Your task to perform on an android device: open app "Truecaller" Image 0: 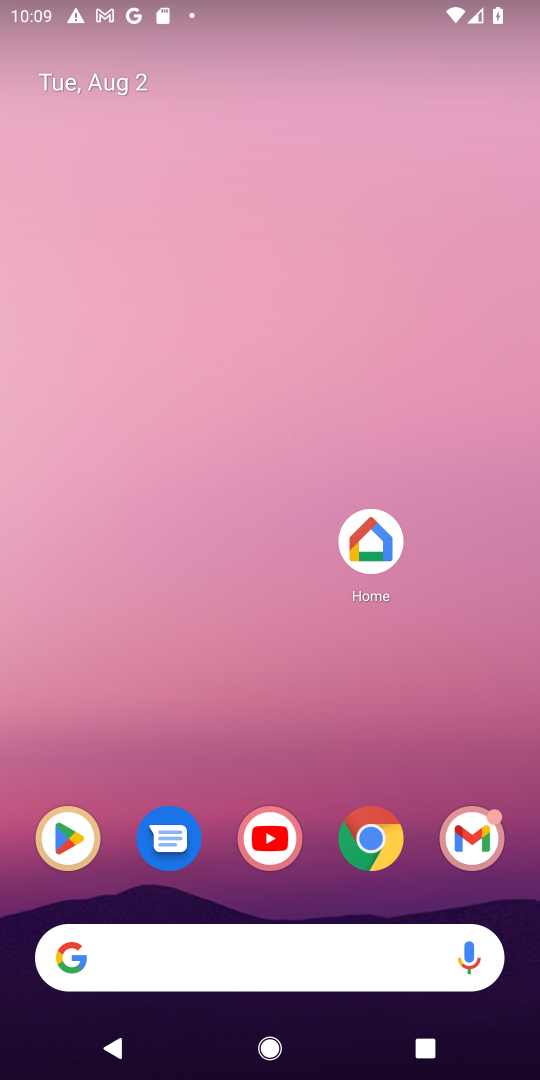
Step 0: press home button
Your task to perform on an android device: open app "Truecaller" Image 1: 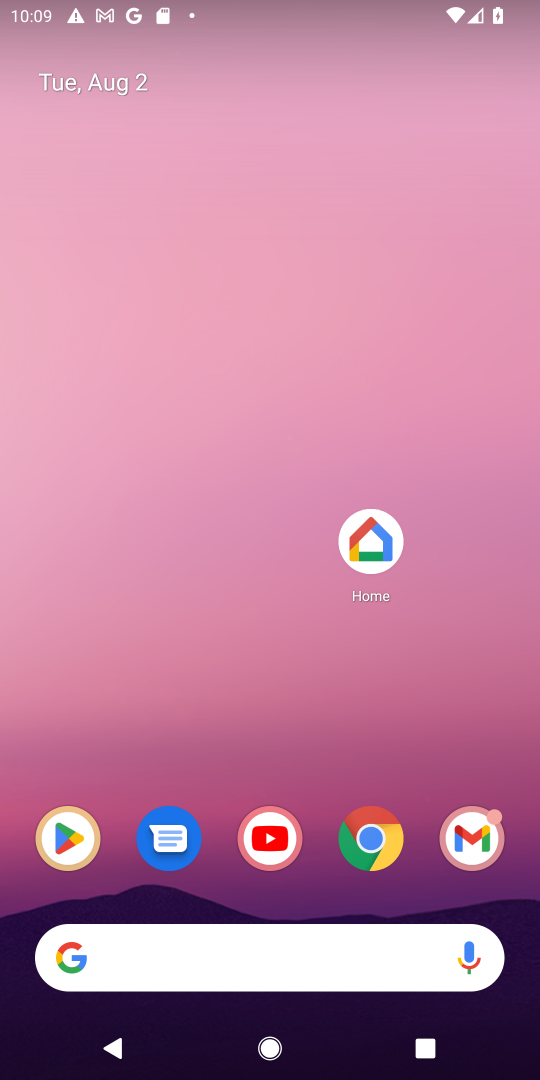
Step 1: drag from (220, 762) to (226, 96)
Your task to perform on an android device: open app "Truecaller" Image 2: 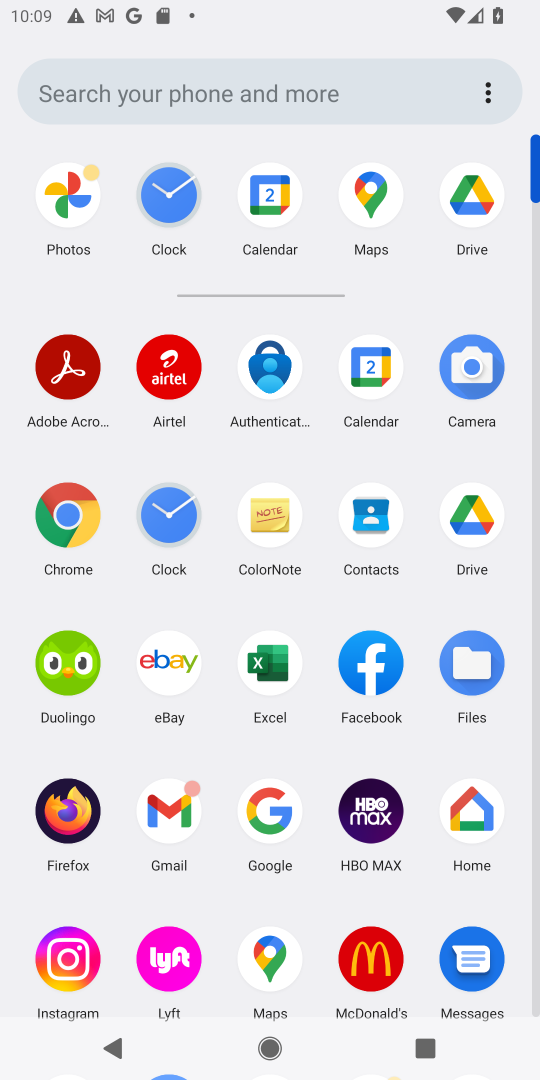
Step 2: drag from (222, 752) to (206, 385)
Your task to perform on an android device: open app "Truecaller" Image 3: 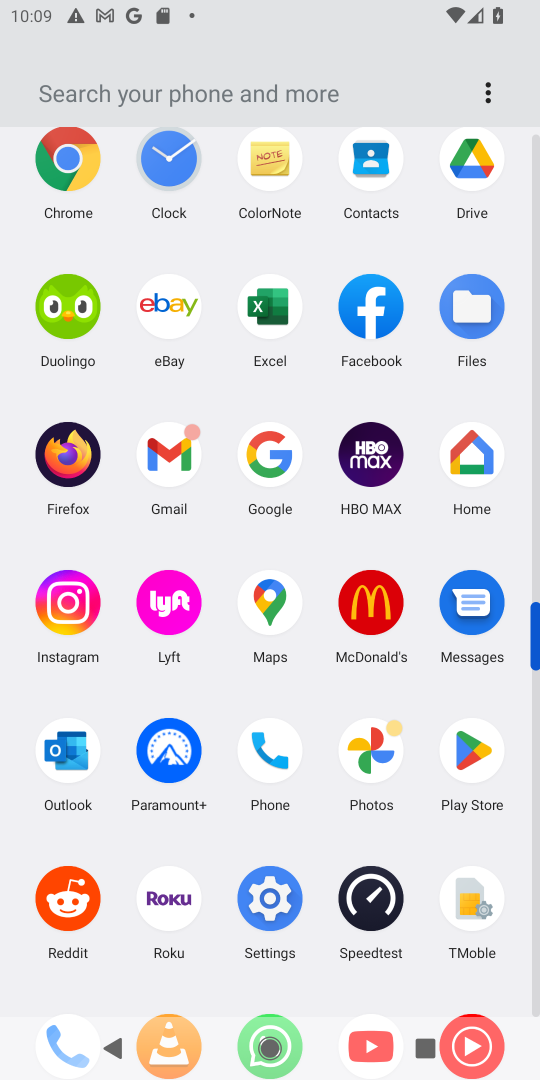
Step 3: drag from (197, 985) to (226, 592)
Your task to perform on an android device: open app "Truecaller" Image 4: 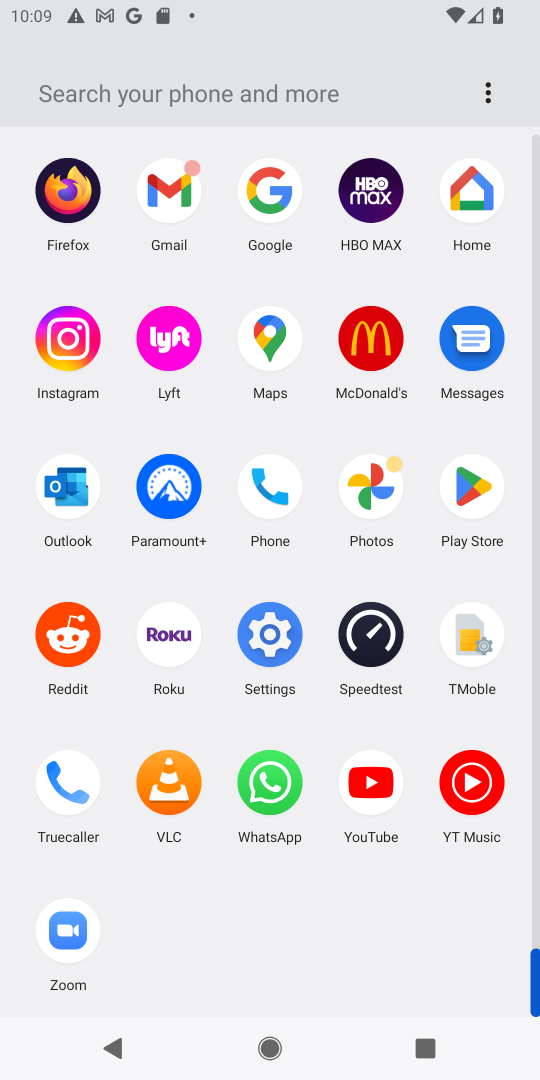
Step 4: click (474, 492)
Your task to perform on an android device: open app "Truecaller" Image 5: 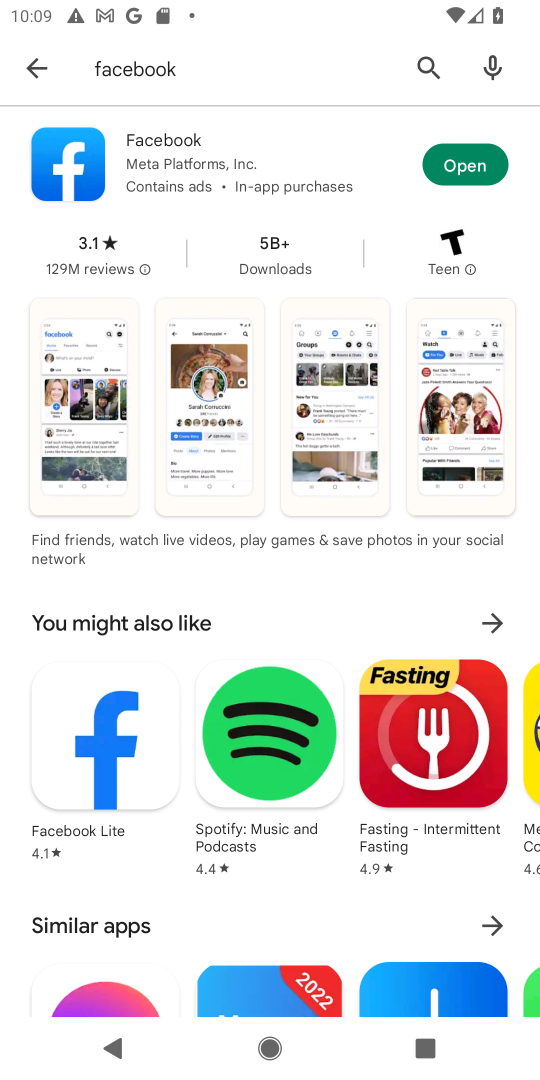
Step 5: click (428, 52)
Your task to perform on an android device: open app "Truecaller" Image 6: 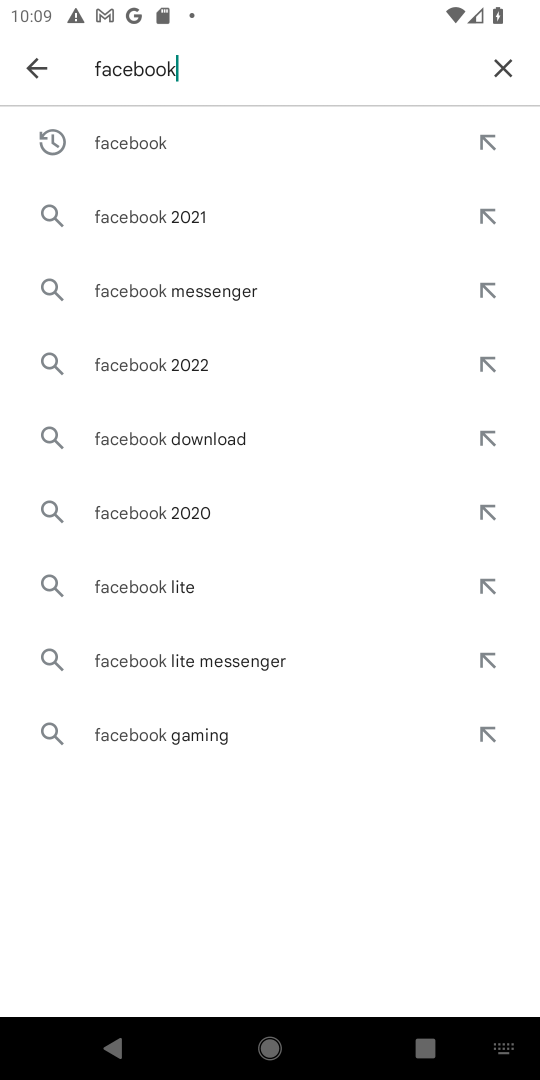
Step 6: click (499, 66)
Your task to perform on an android device: open app "Truecaller" Image 7: 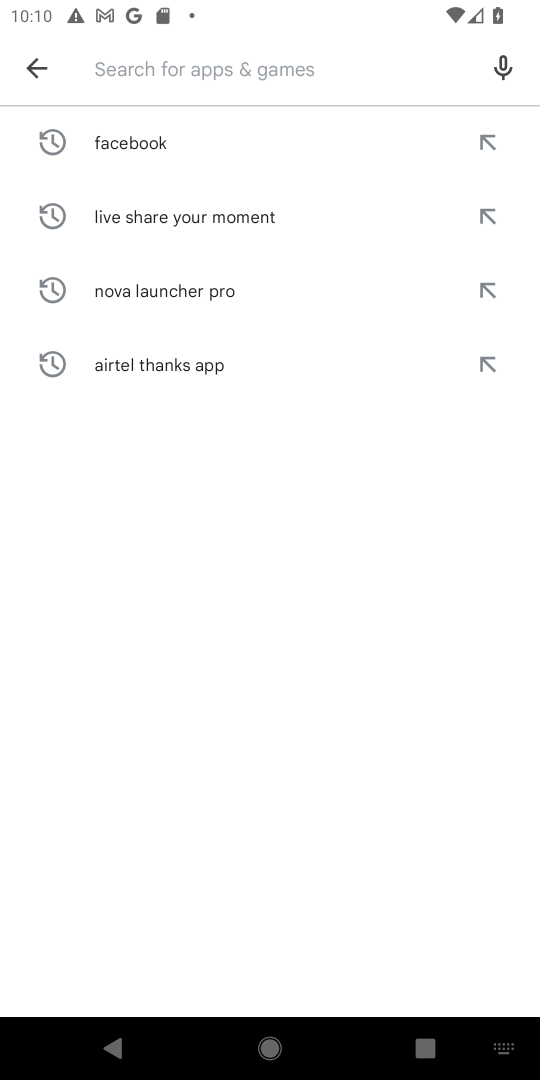
Step 7: type "trucaller "
Your task to perform on an android device: open app "Truecaller" Image 8: 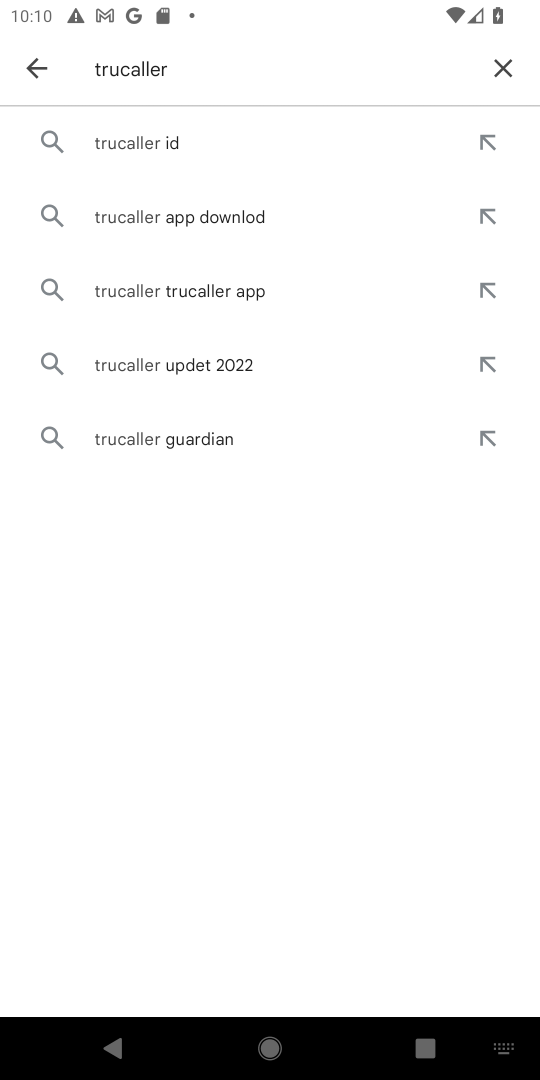
Step 8: click (234, 214)
Your task to perform on an android device: open app "Truecaller" Image 9: 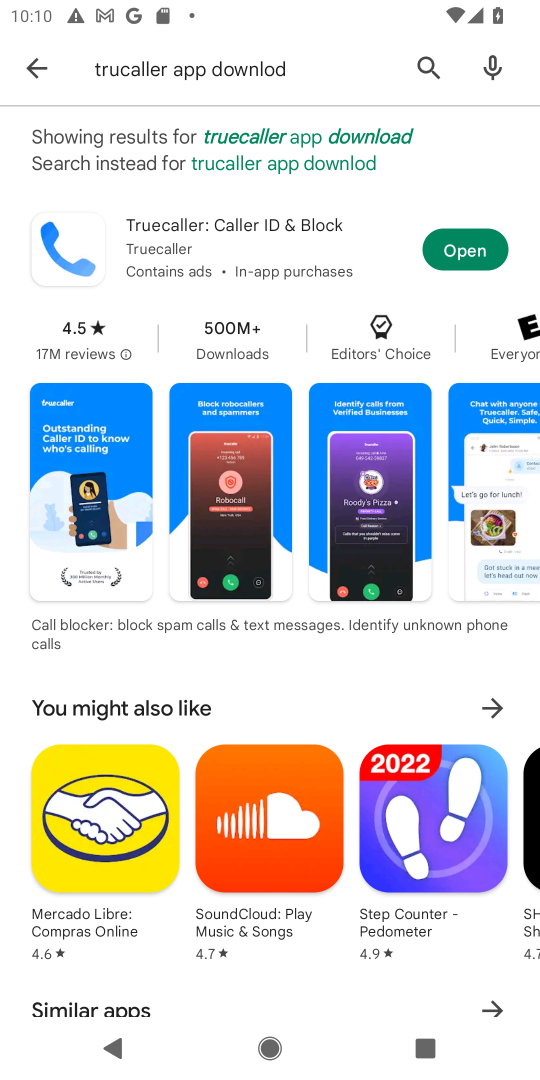
Step 9: click (457, 251)
Your task to perform on an android device: open app "Truecaller" Image 10: 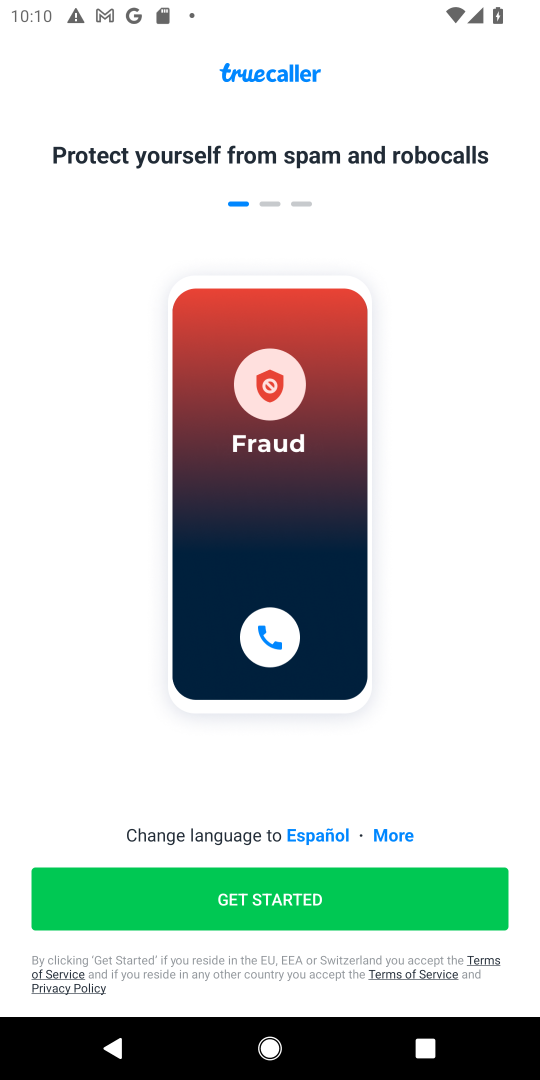
Step 10: task complete